Your task to perform on an android device: set the stopwatch Image 0: 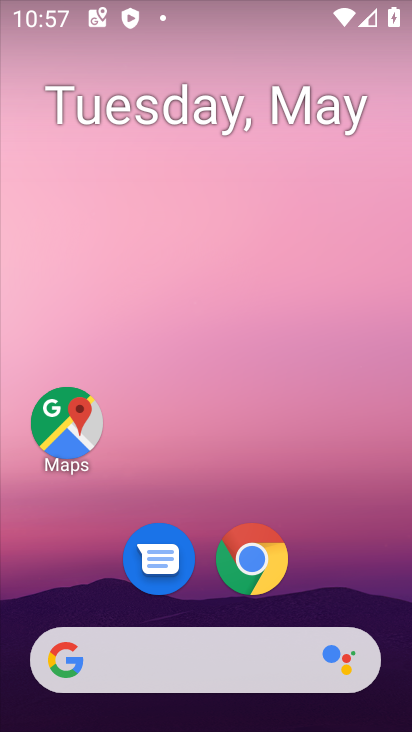
Step 0: drag from (391, 553) to (324, 12)
Your task to perform on an android device: set the stopwatch Image 1: 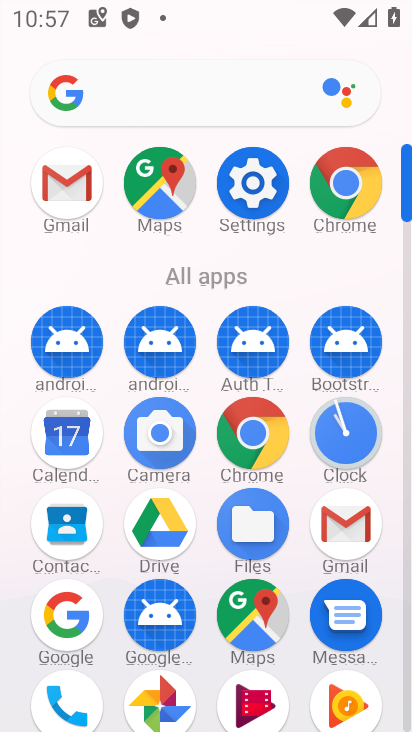
Step 1: click (370, 425)
Your task to perform on an android device: set the stopwatch Image 2: 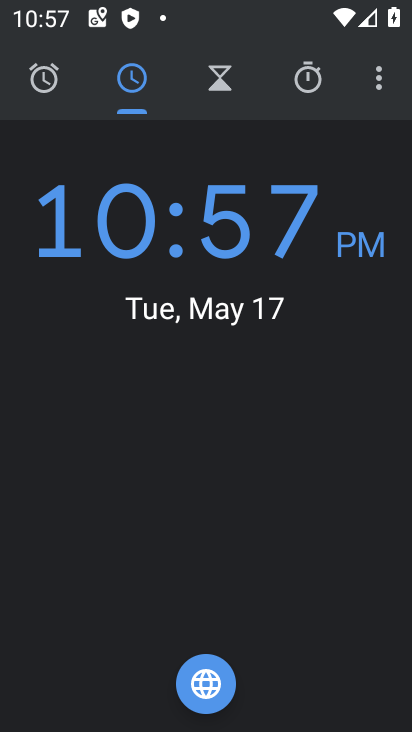
Step 2: click (297, 80)
Your task to perform on an android device: set the stopwatch Image 3: 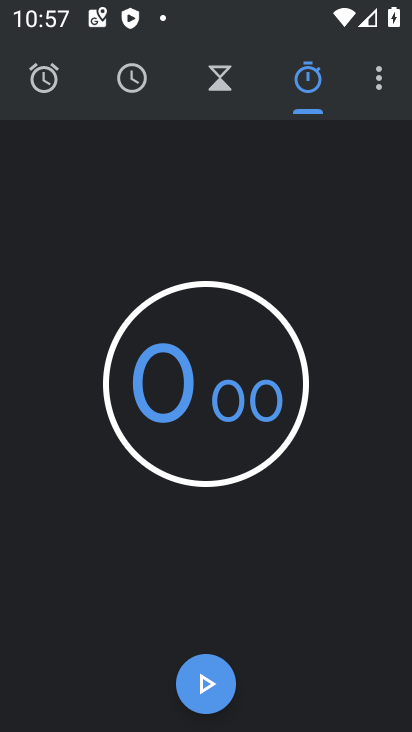
Step 3: task complete